Your task to perform on an android device: snooze an email in the gmail app Image 0: 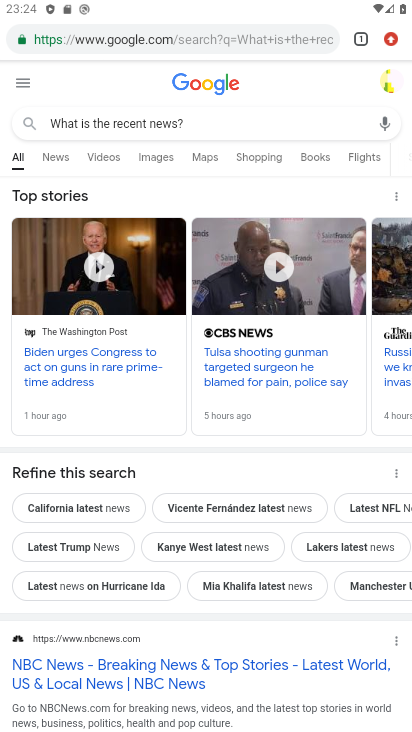
Step 0: press home button
Your task to perform on an android device: snooze an email in the gmail app Image 1: 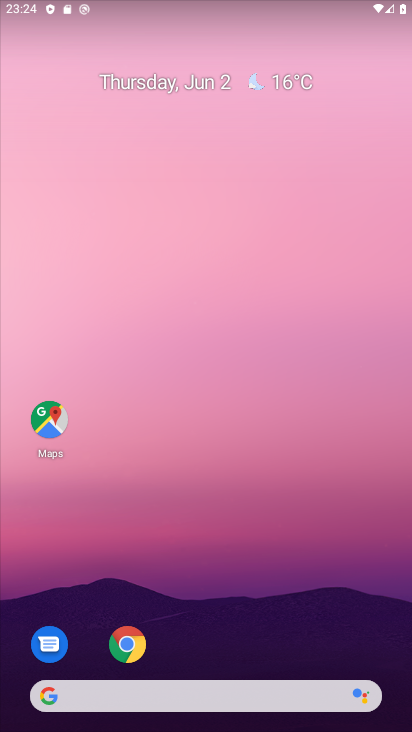
Step 1: drag from (251, 634) to (307, 242)
Your task to perform on an android device: snooze an email in the gmail app Image 2: 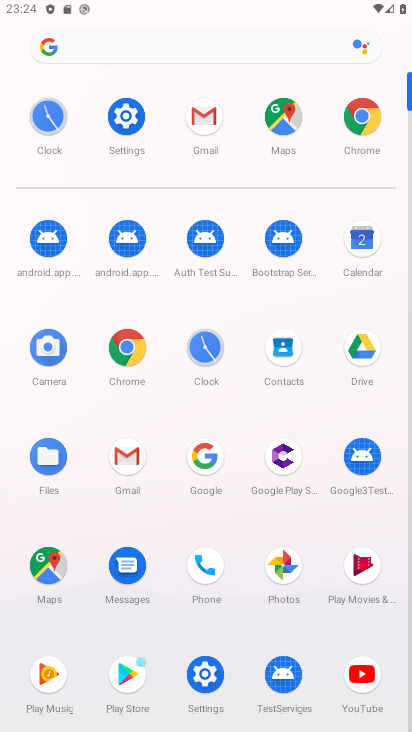
Step 2: click (125, 462)
Your task to perform on an android device: snooze an email in the gmail app Image 3: 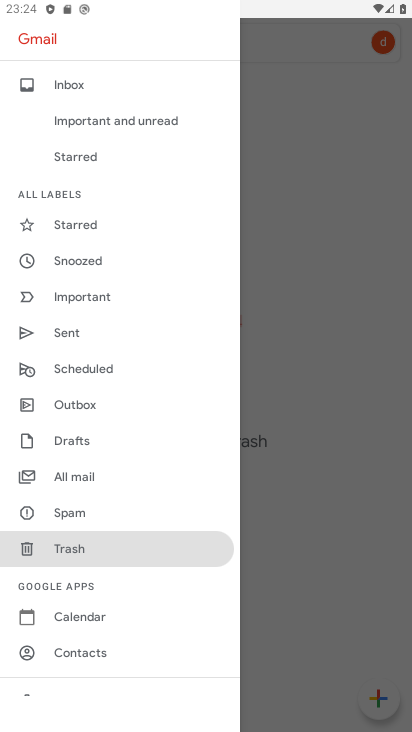
Step 3: click (102, 482)
Your task to perform on an android device: snooze an email in the gmail app Image 4: 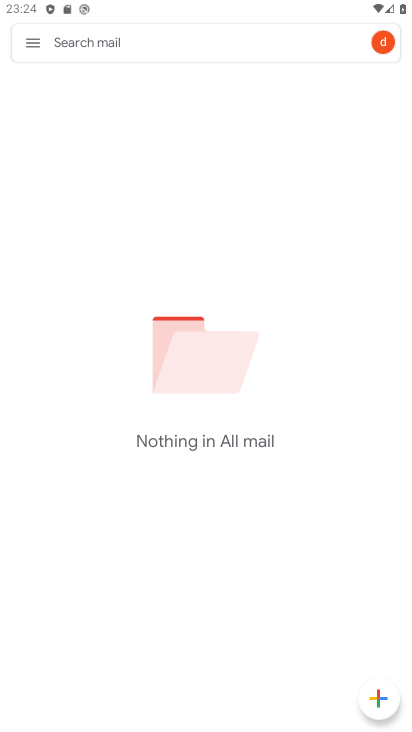
Step 4: task complete